Your task to perform on an android device: Go to CNN.com Image 0: 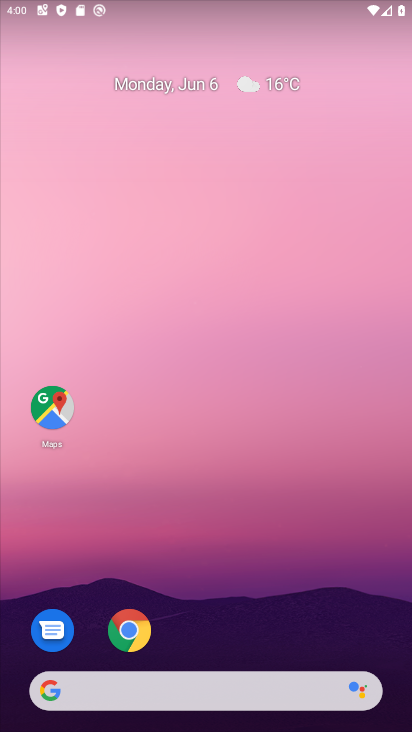
Step 0: click (138, 629)
Your task to perform on an android device: Go to CNN.com Image 1: 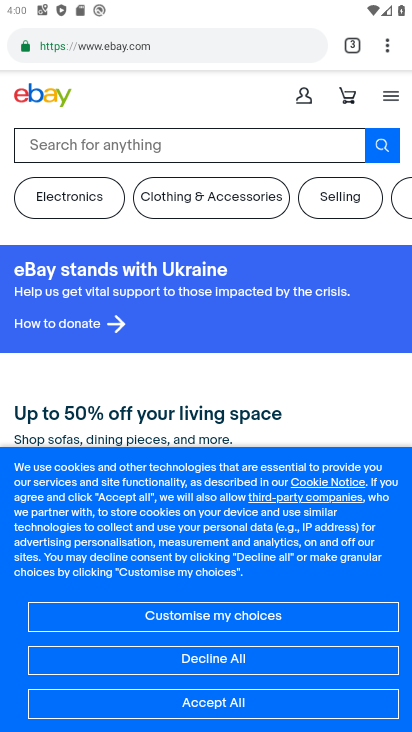
Step 1: click (350, 43)
Your task to perform on an android device: Go to CNN.com Image 2: 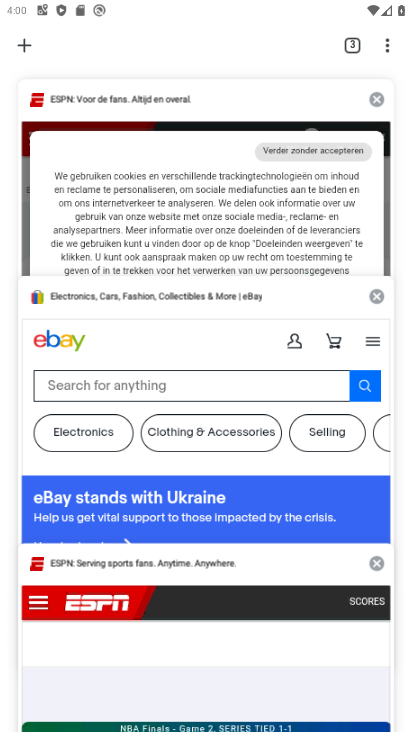
Step 2: click (25, 51)
Your task to perform on an android device: Go to CNN.com Image 3: 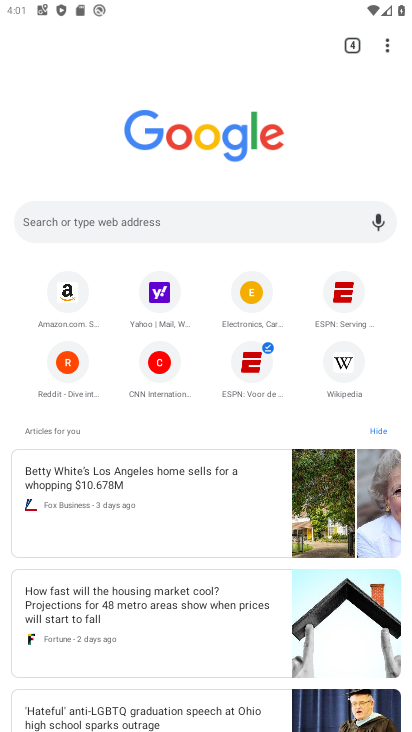
Step 3: click (156, 390)
Your task to perform on an android device: Go to CNN.com Image 4: 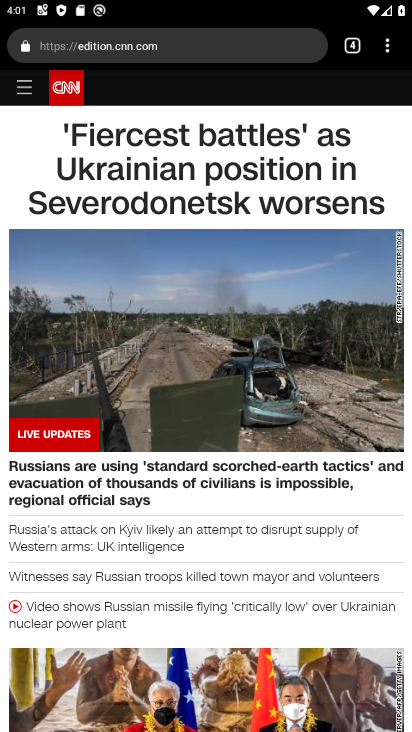
Step 4: task complete